Your task to perform on an android device: Go to Google maps Image 0: 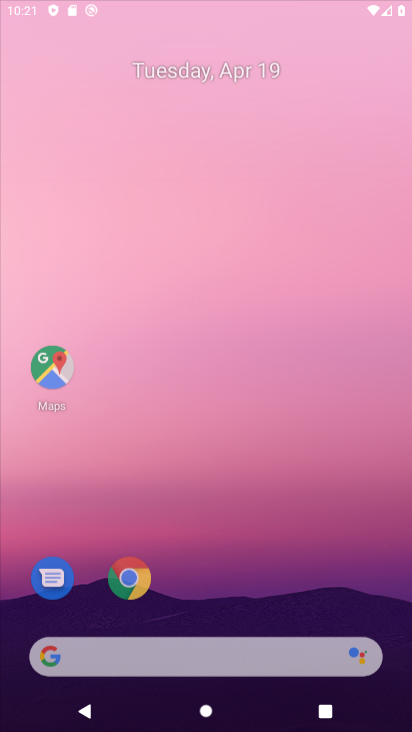
Step 0: drag from (266, 92) to (336, 259)
Your task to perform on an android device: Go to Google maps Image 1: 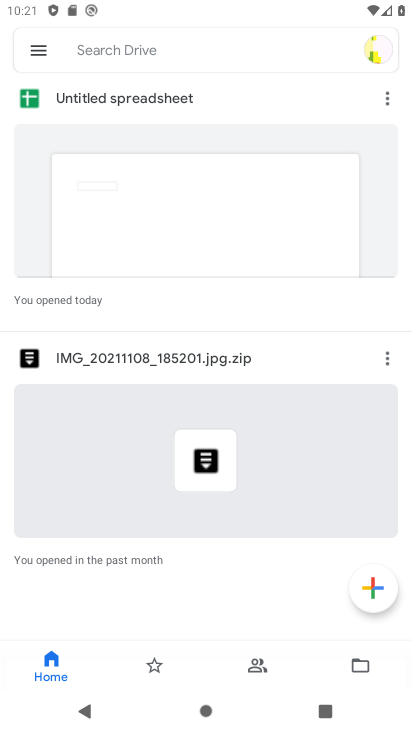
Step 1: press home button
Your task to perform on an android device: Go to Google maps Image 2: 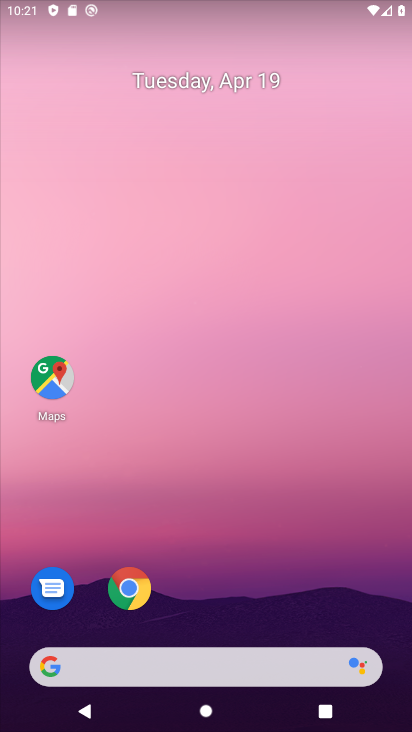
Step 2: click (56, 378)
Your task to perform on an android device: Go to Google maps Image 3: 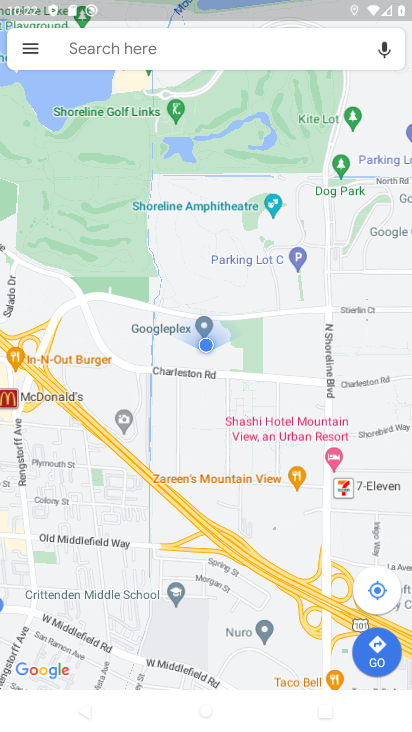
Step 3: task complete